Your task to perform on an android device: Turn off the flashlight Image 0: 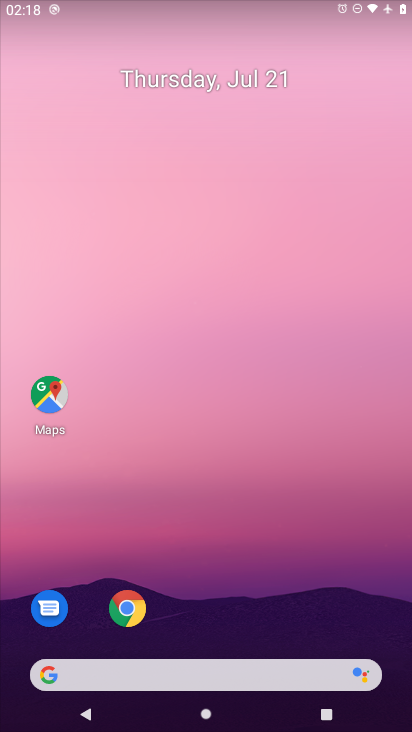
Step 0: press home button
Your task to perform on an android device: Turn off the flashlight Image 1: 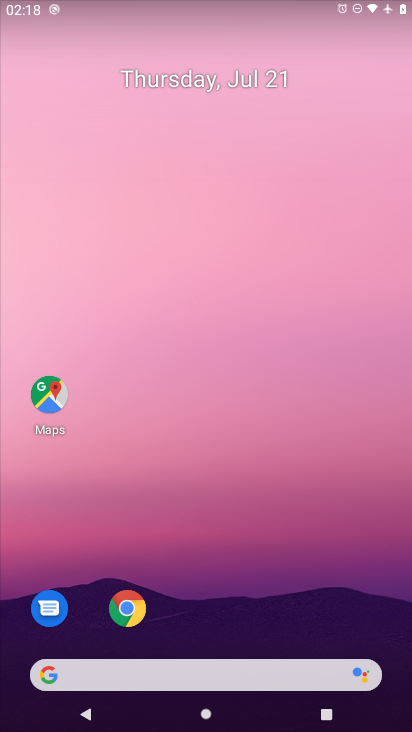
Step 1: task complete